Your task to perform on an android device: change the clock display to analog Image 0: 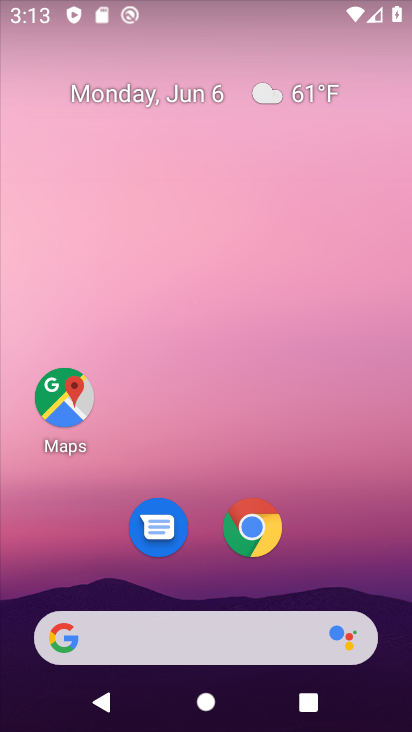
Step 0: drag from (319, 513) to (276, 60)
Your task to perform on an android device: change the clock display to analog Image 1: 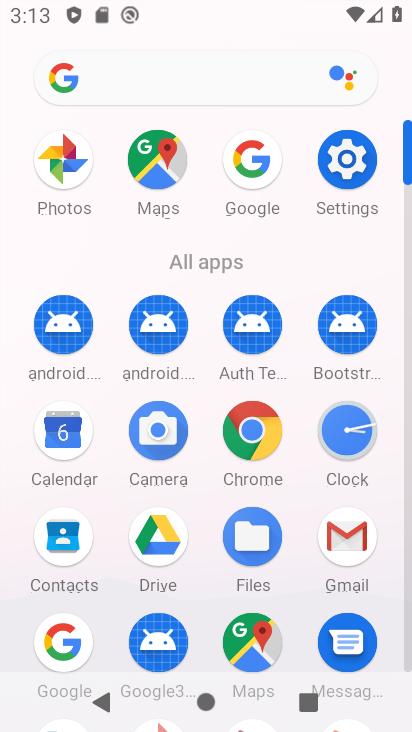
Step 1: click (346, 427)
Your task to perform on an android device: change the clock display to analog Image 2: 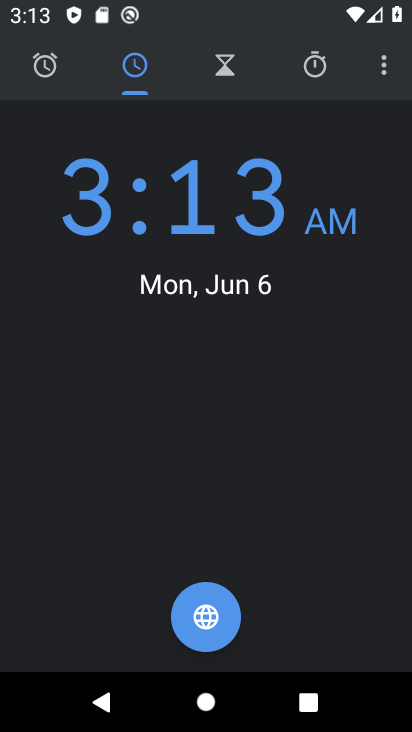
Step 2: click (386, 65)
Your task to perform on an android device: change the clock display to analog Image 3: 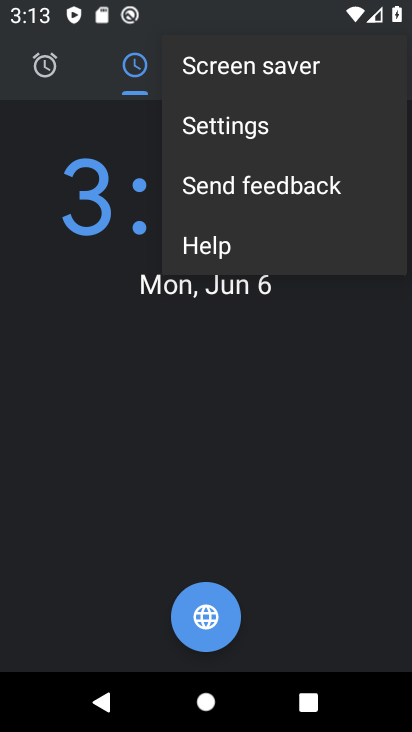
Step 3: click (220, 126)
Your task to perform on an android device: change the clock display to analog Image 4: 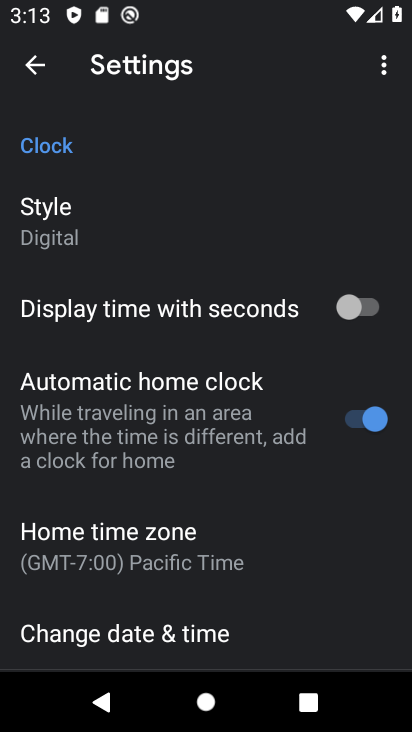
Step 4: click (71, 234)
Your task to perform on an android device: change the clock display to analog Image 5: 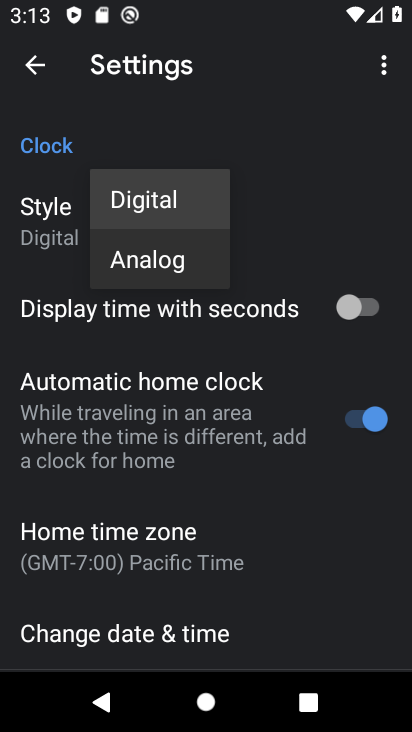
Step 5: click (117, 253)
Your task to perform on an android device: change the clock display to analog Image 6: 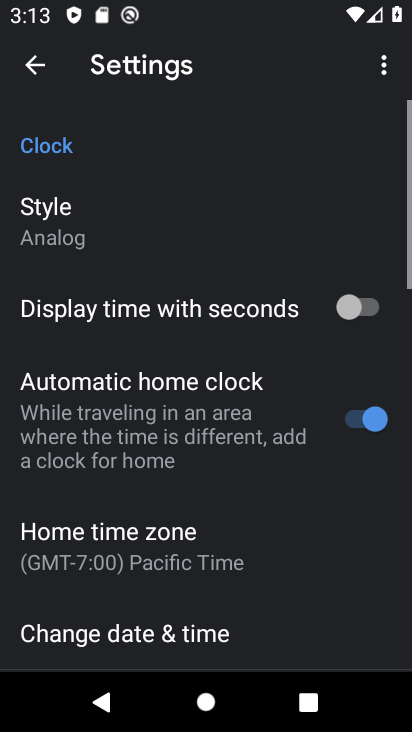
Step 6: task complete